Your task to perform on an android device: Go to Maps Image 0: 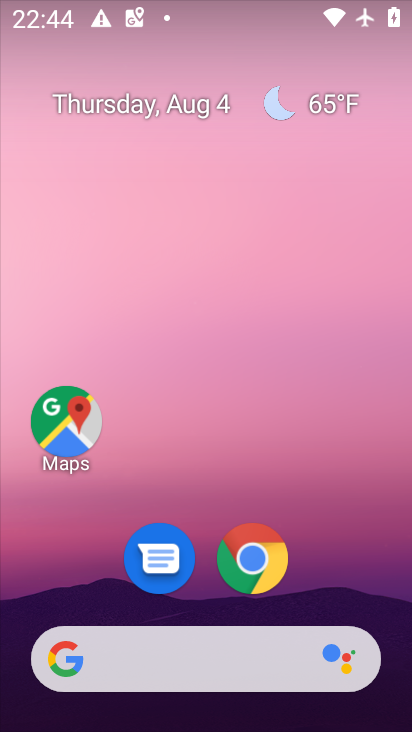
Step 0: click (357, 240)
Your task to perform on an android device: Go to Maps Image 1: 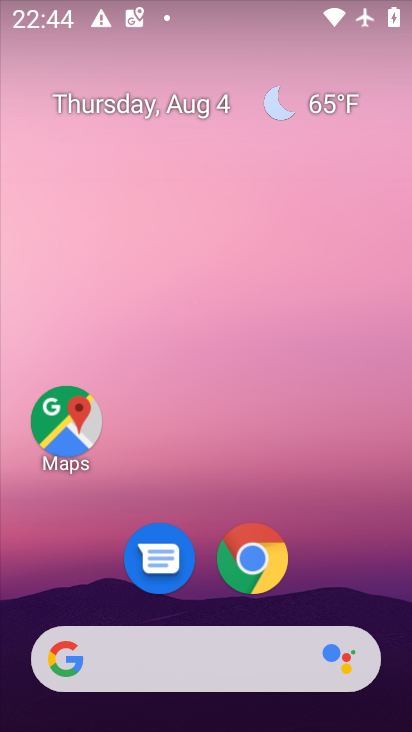
Step 1: drag from (341, 588) to (336, 93)
Your task to perform on an android device: Go to Maps Image 2: 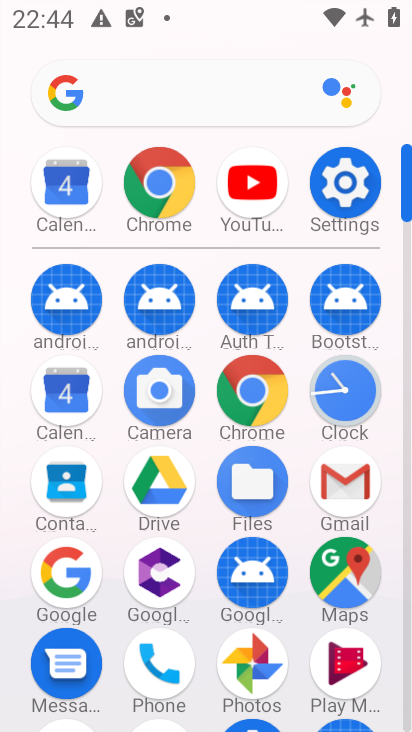
Step 2: click (330, 559)
Your task to perform on an android device: Go to Maps Image 3: 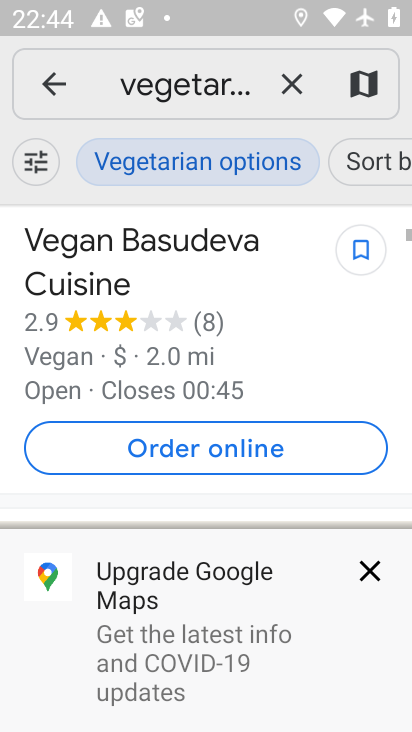
Step 3: click (60, 70)
Your task to perform on an android device: Go to Maps Image 4: 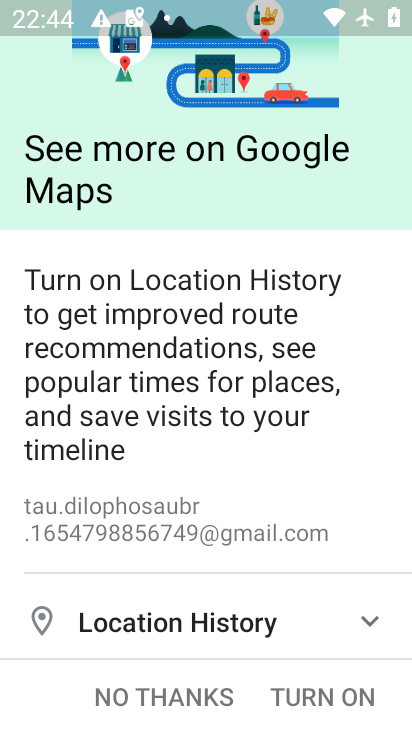
Step 4: click (188, 699)
Your task to perform on an android device: Go to Maps Image 5: 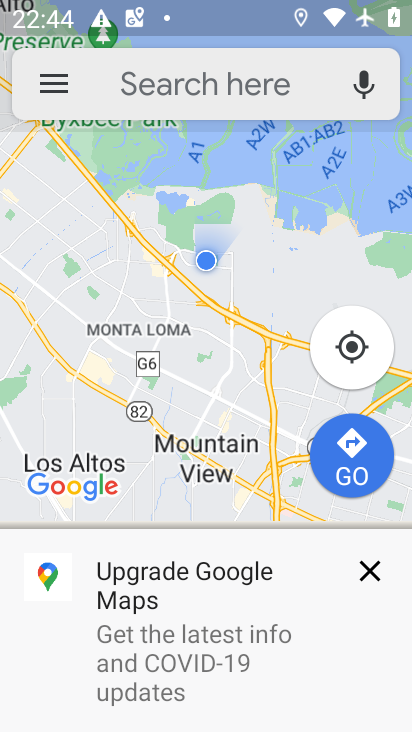
Step 5: task complete